Your task to perform on an android device: Open calendar and show me the third week of next month Image 0: 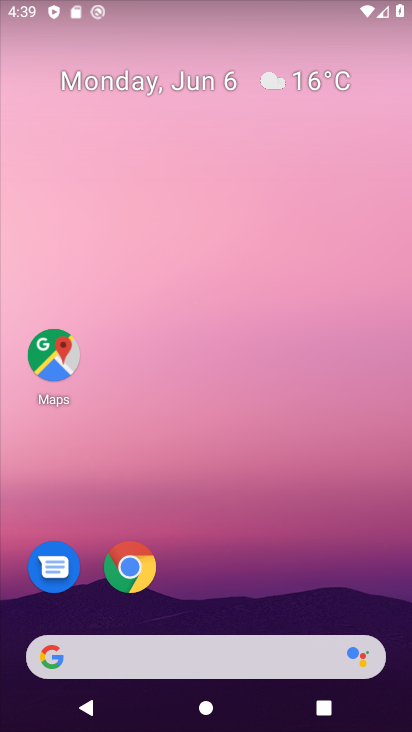
Step 0: click (409, 544)
Your task to perform on an android device: Open calendar and show me the third week of next month Image 1: 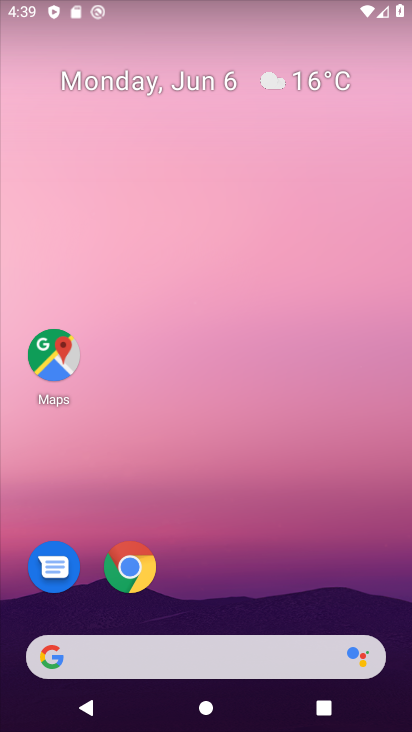
Step 1: drag from (227, 521) to (2, 675)
Your task to perform on an android device: Open calendar and show me the third week of next month Image 2: 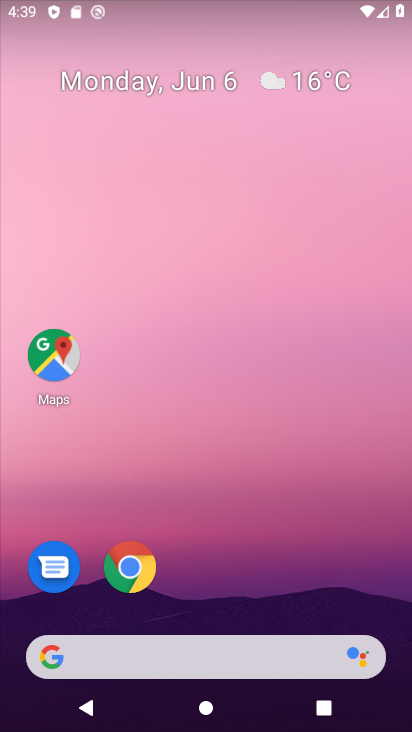
Step 2: drag from (242, 684) to (169, 237)
Your task to perform on an android device: Open calendar and show me the third week of next month Image 3: 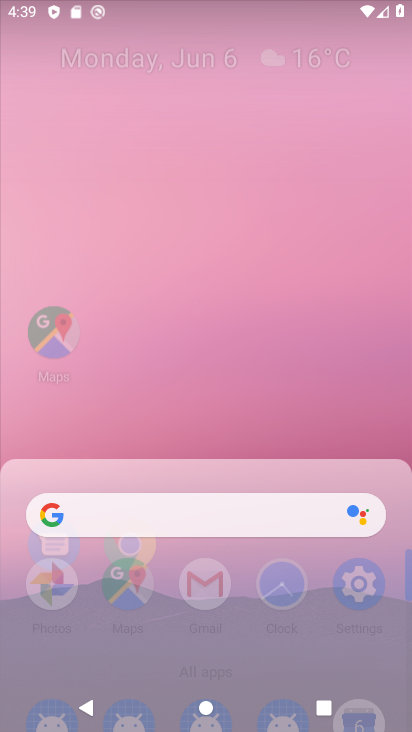
Step 3: drag from (276, 717) to (225, 284)
Your task to perform on an android device: Open calendar and show me the third week of next month Image 4: 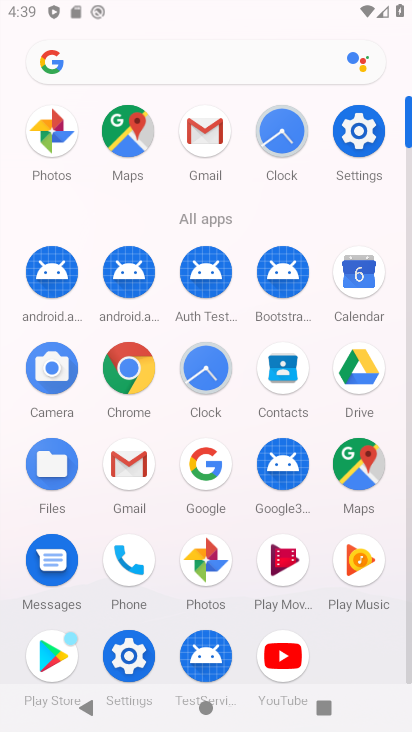
Step 4: drag from (252, 576) to (187, 150)
Your task to perform on an android device: Open calendar and show me the third week of next month Image 5: 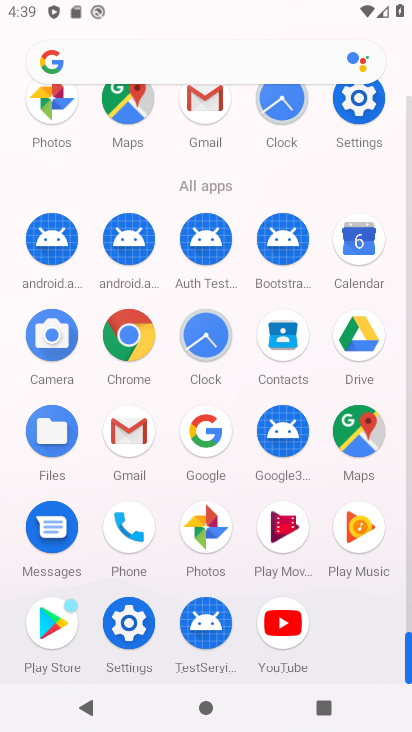
Step 5: click (361, 280)
Your task to perform on an android device: Open calendar and show me the third week of next month Image 6: 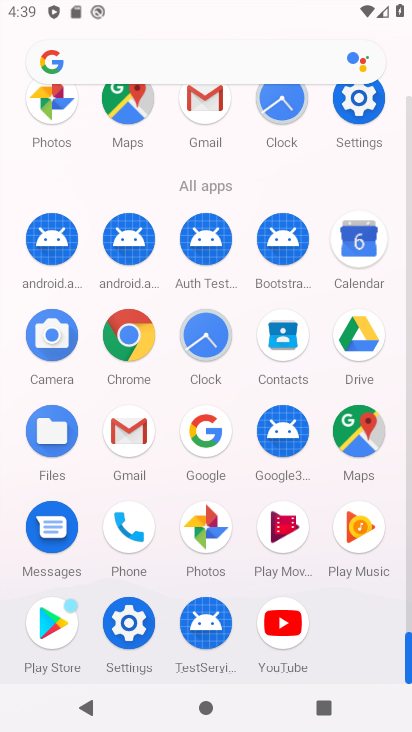
Step 6: click (356, 252)
Your task to perform on an android device: Open calendar and show me the third week of next month Image 7: 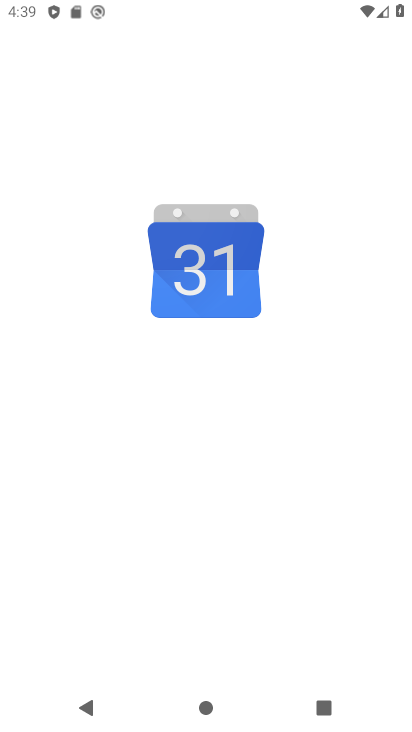
Step 7: click (357, 251)
Your task to perform on an android device: Open calendar and show me the third week of next month Image 8: 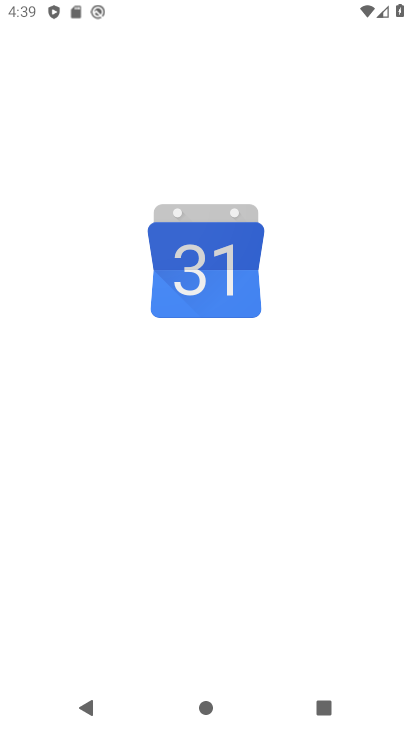
Step 8: click (357, 251)
Your task to perform on an android device: Open calendar and show me the third week of next month Image 9: 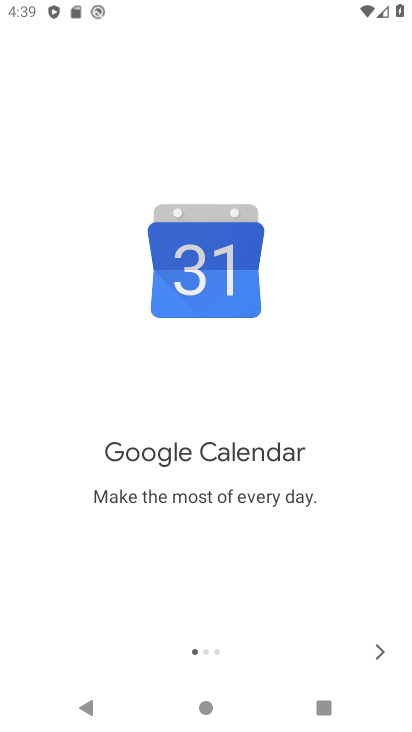
Step 9: click (377, 648)
Your task to perform on an android device: Open calendar and show me the third week of next month Image 10: 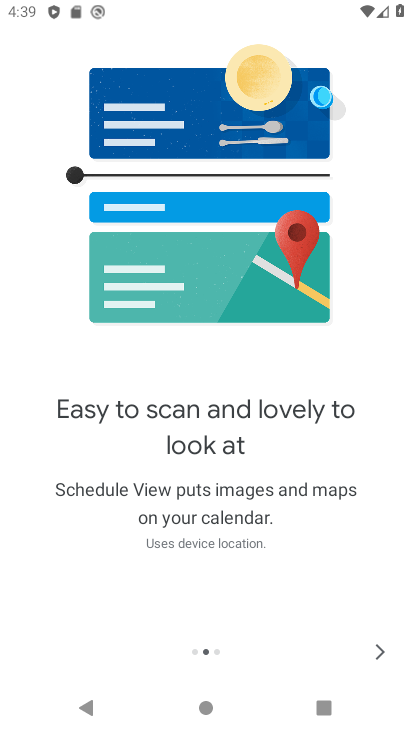
Step 10: click (377, 648)
Your task to perform on an android device: Open calendar and show me the third week of next month Image 11: 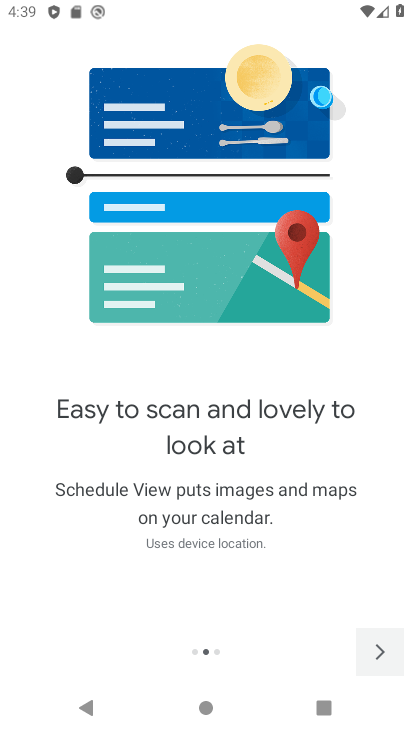
Step 11: click (377, 648)
Your task to perform on an android device: Open calendar and show me the third week of next month Image 12: 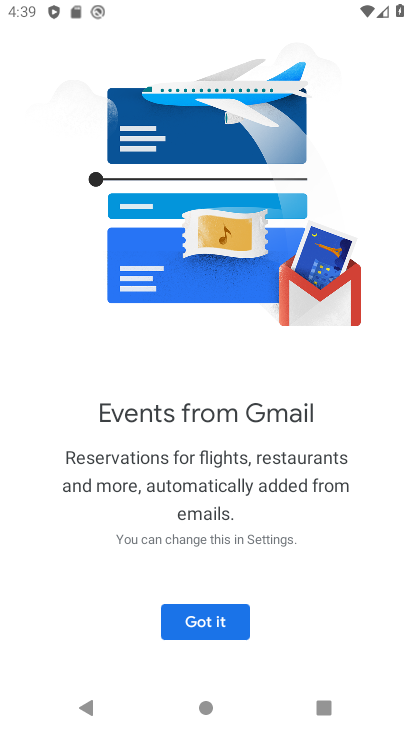
Step 12: click (233, 619)
Your task to perform on an android device: Open calendar and show me the third week of next month Image 13: 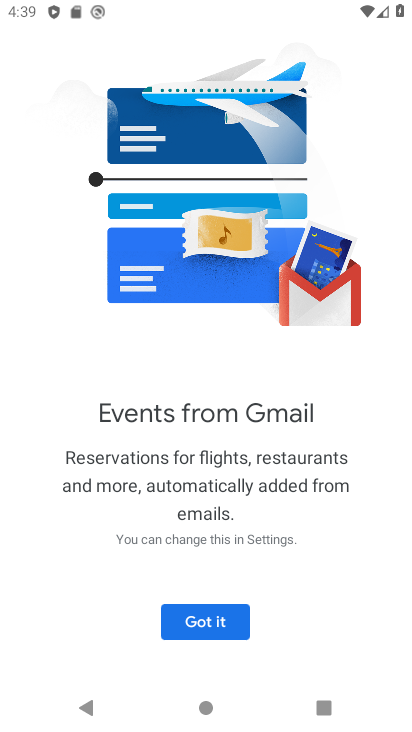
Step 13: click (231, 619)
Your task to perform on an android device: Open calendar and show me the third week of next month Image 14: 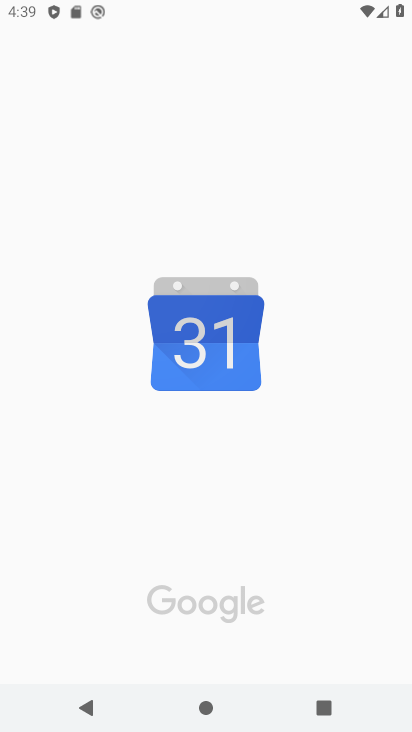
Step 14: click (206, 612)
Your task to perform on an android device: Open calendar and show me the third week of next month Image 15: 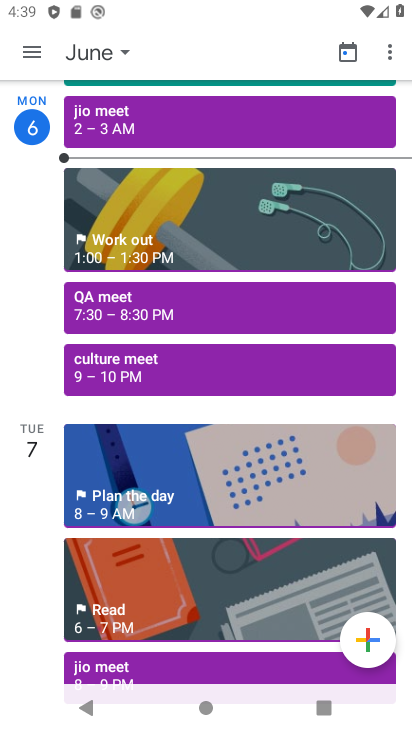
Step 15: click (118, 57)
Your task to perform on an android device: Open calendar and show me the third week of next month Image 16: 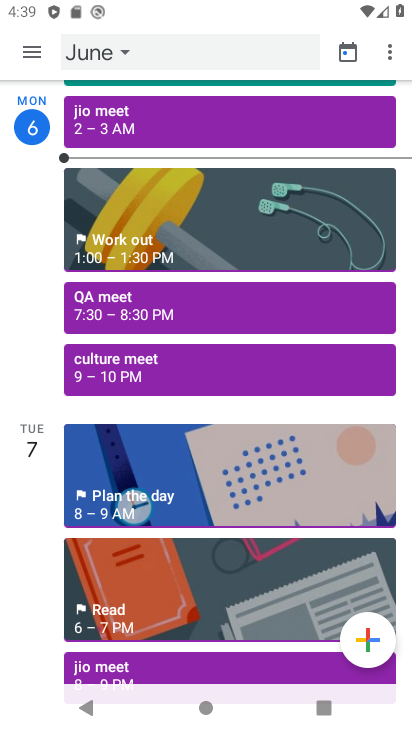
Step 16: click (118, 57)
Your task to perform on an android device: Open calendar and show me the third week of next month Image 17: 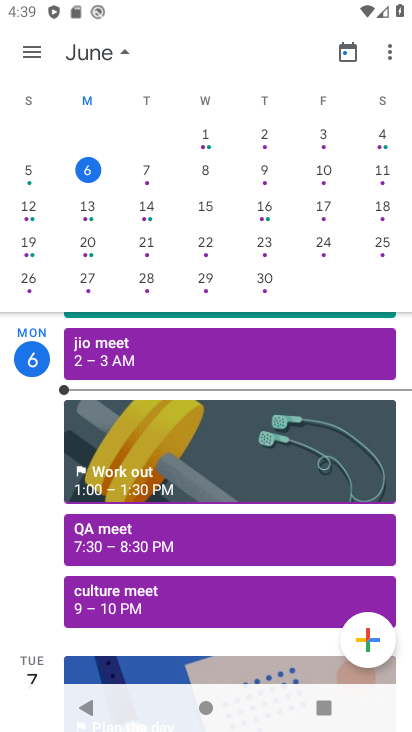
Step 17: click (122, 57)
Your task to perform on an android device: Open calendar and show me the third week of next month Image 18: 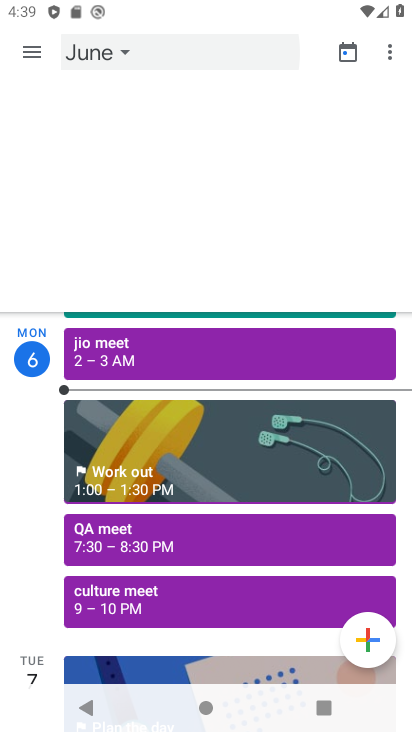
Step 18: click (122, 57)
Your task to perform on an android device: Open calendar and show me the third week of next month Image 19: 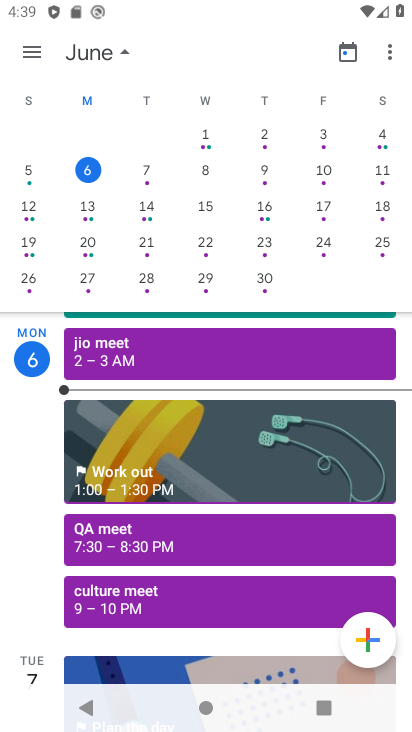
Step 19: drag from (269, 115) to (87, 156)
Your task to perform on an android device: Open calendar and show me the third week of next month Image 20: 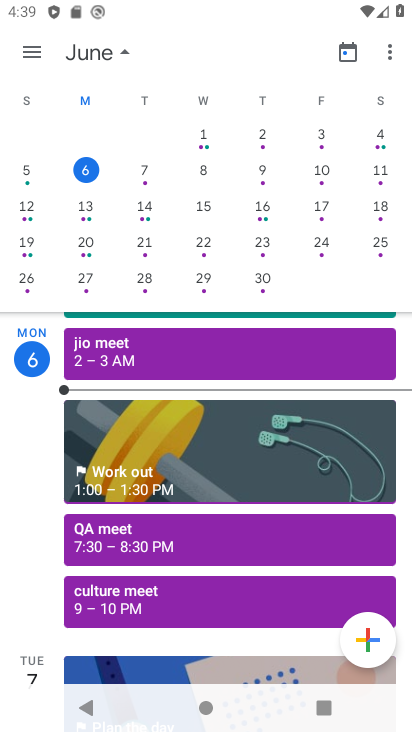
Step 20: drag from (268, 292) to (2, 192)
Your task to perform on an android device: Open calendar and show me the third week of next month Image 21: 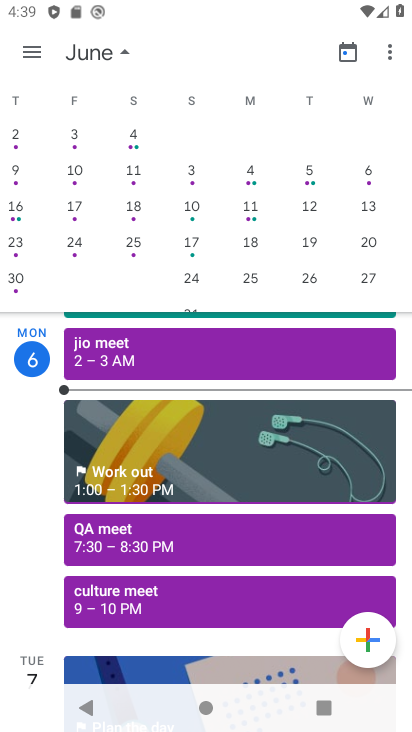
Step 21: drag from (272, 200) to (9, 189)
Your task to perform on an android device: Open calendar and show me the third week of next month Image 22: 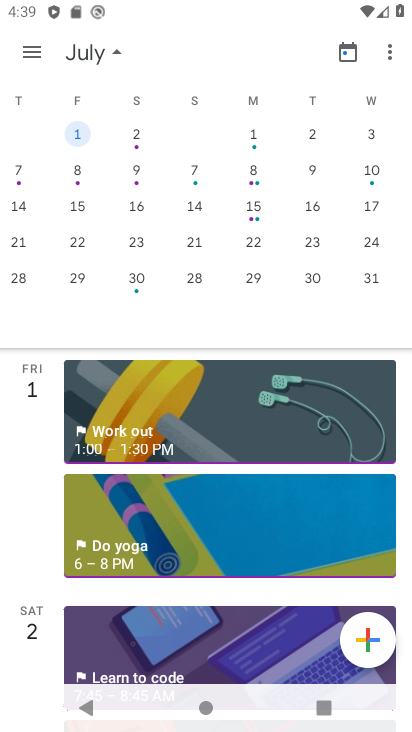
Step 22: drag from (295, 189) to (22, 179)
Your task to perform on an android device: Open calendar and show me the third week of next month Image 23: 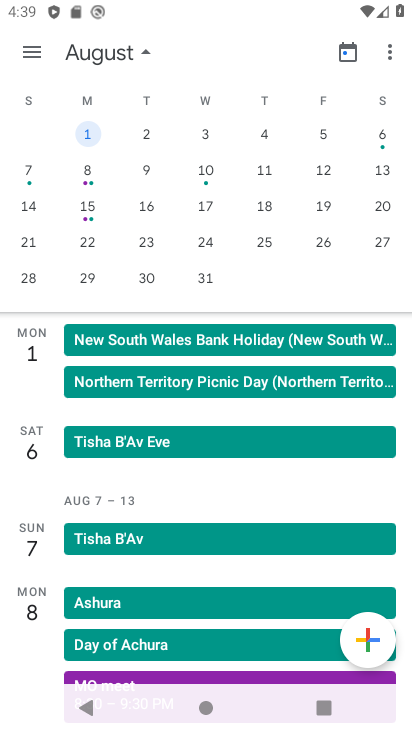
Step 23: drag from (101, 223) to (404, 253)
Your task to perform on an android device: Open calendar and show me the third week of next month Image 24: 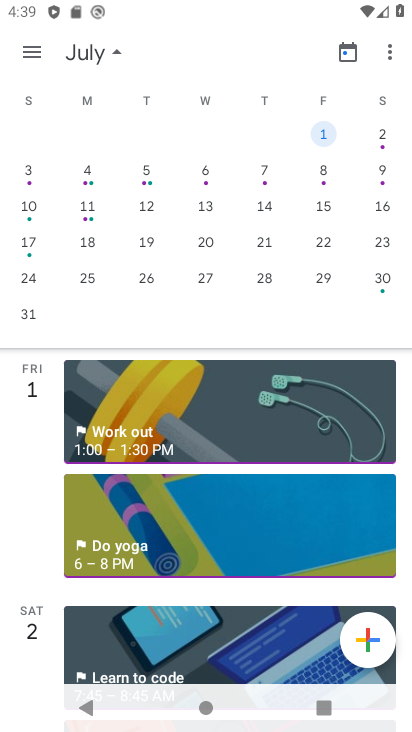
Step 24: click (327, 205)
Your task to perform on an android device: Open calendar and show me the third week of next month Image 25: 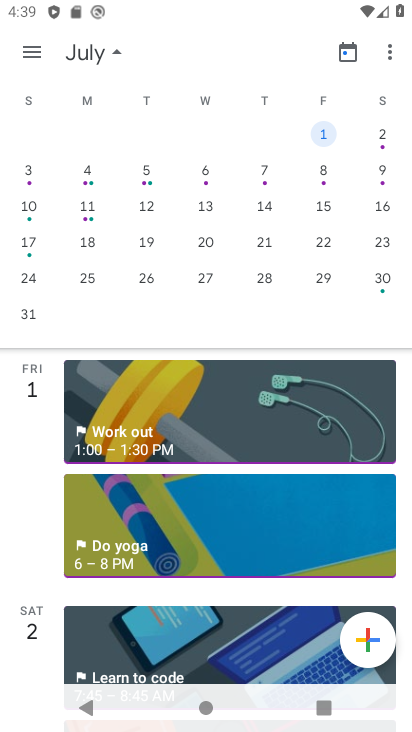
Step 25: click (327, 205)
Your task to perform on an android device: Open calendar and show me the third week of next month Image 26: 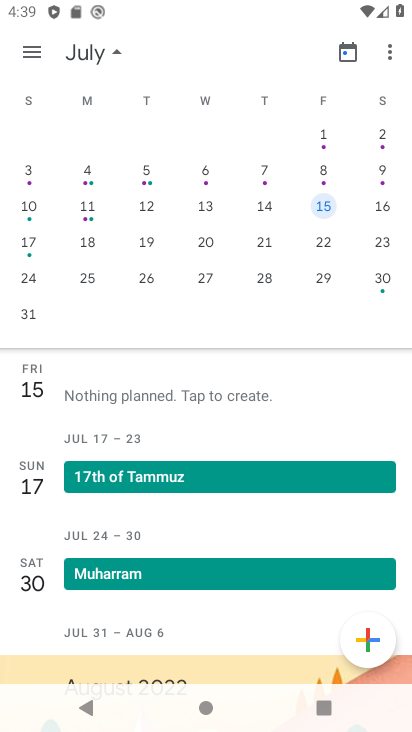
Step 26: click (327, 205)
Your task to perform on an android device: Open calendar and show me the third week of next month Image 27: 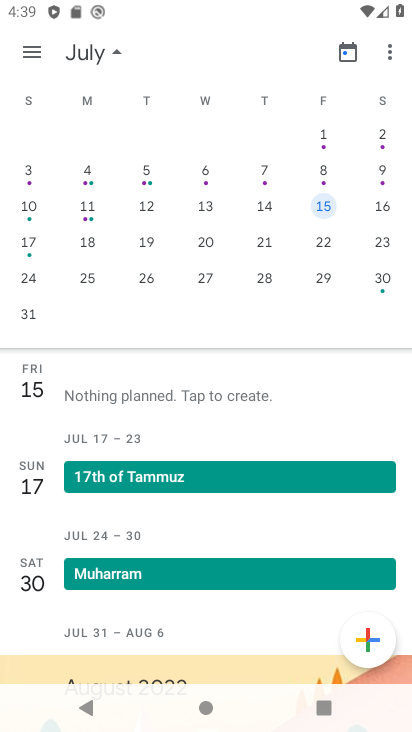
Step 27: click (324, 205)
Your task to perform on an android device: Open calendar and show me the third week of next month Image 28: 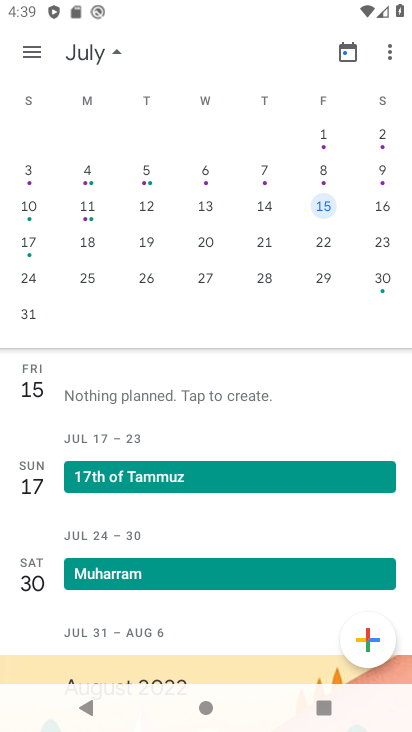
Step 28: task complete